Your task to perform on an android device: uninstall "Duolingo: language lessons" Image 0: 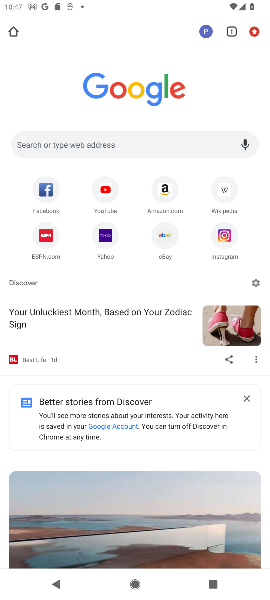
Step 0: press home button
Your task to perform on an android device: uninstall "Duolingo: language lessons" Image 1: 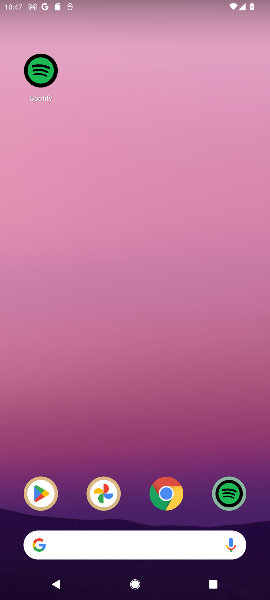
Step 1: click (37, 507)
Your task to perform on an android device: uninstall "Duolingo: language lessons" Image 2: 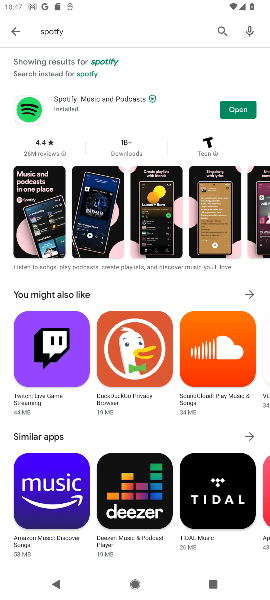
Step 2: click (217, 31)
Your task to perform on an android device: uninstall "Duolingo: language lessons" Image 3: 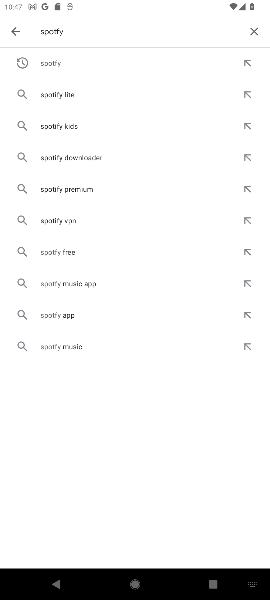
Step 3: click (257, 31)
Your task to perform on an android device: uninstall "Duolingo: language lessons" Image 4: 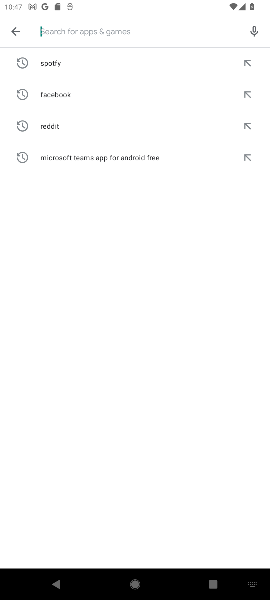
Step 4: type "duolingo"
Your task to perform on an android device: uninstall "Duolingo: language lessons" Image 5: 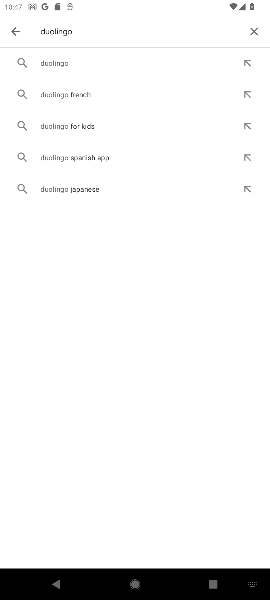
Step 5: click (64, 64)
Your task to perform on an android device: uninstall "Duolingo: language lessons" Image 6: 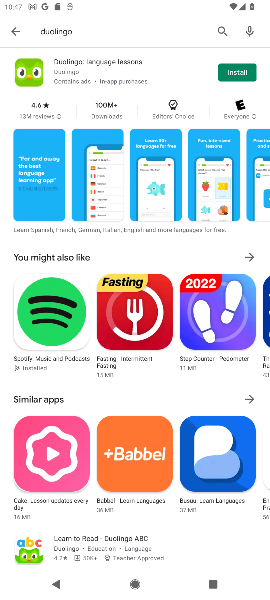
Step 6: click (226, 61)
Your task to perform on an android device: uninstall "Duolingo: language lessons" Image 7: 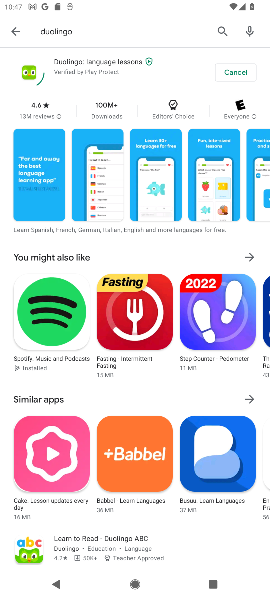
Step 7: task complete